Your task to perform on an android device: open app "Google Chat" (install if not already installed) Image 0: 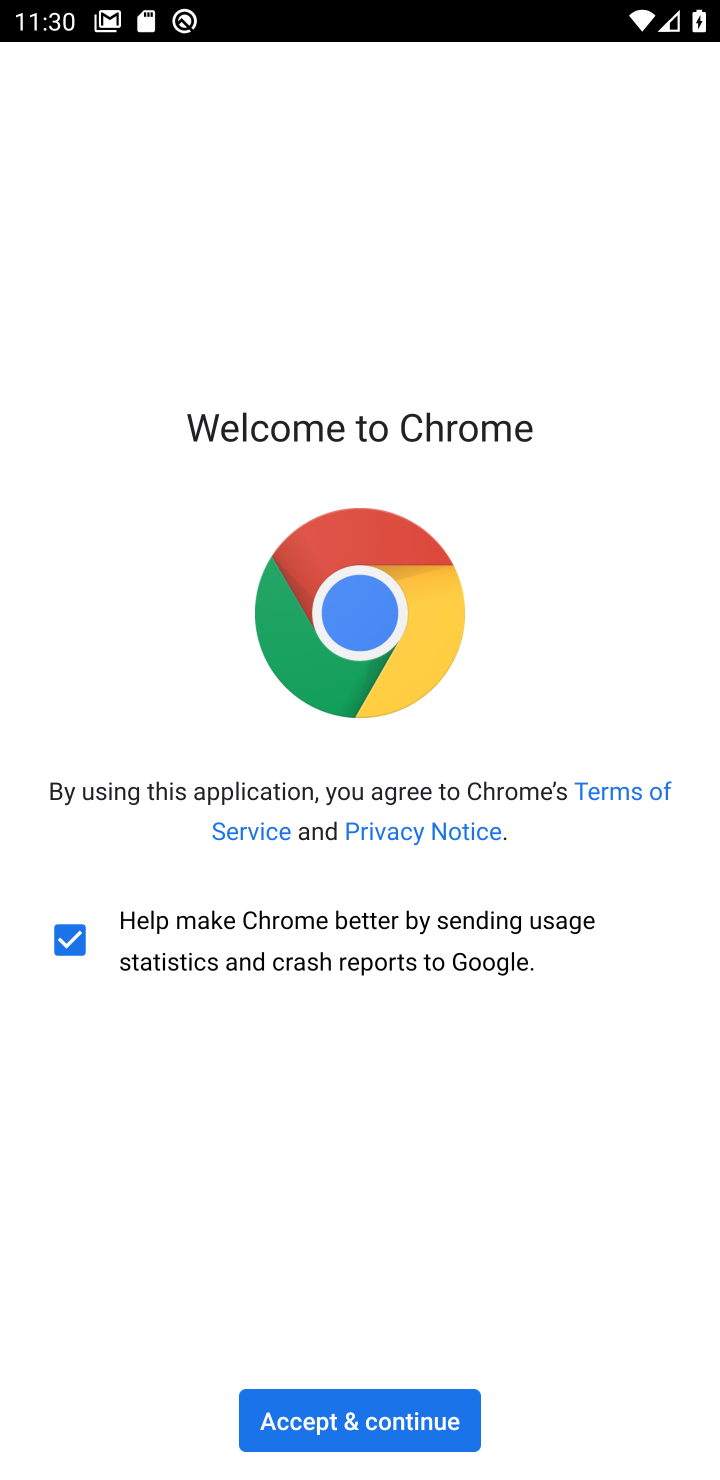
Step 0: press home button
Your task to perform on an android device: open app "Google Chat" (install if not already installed) Image 1: 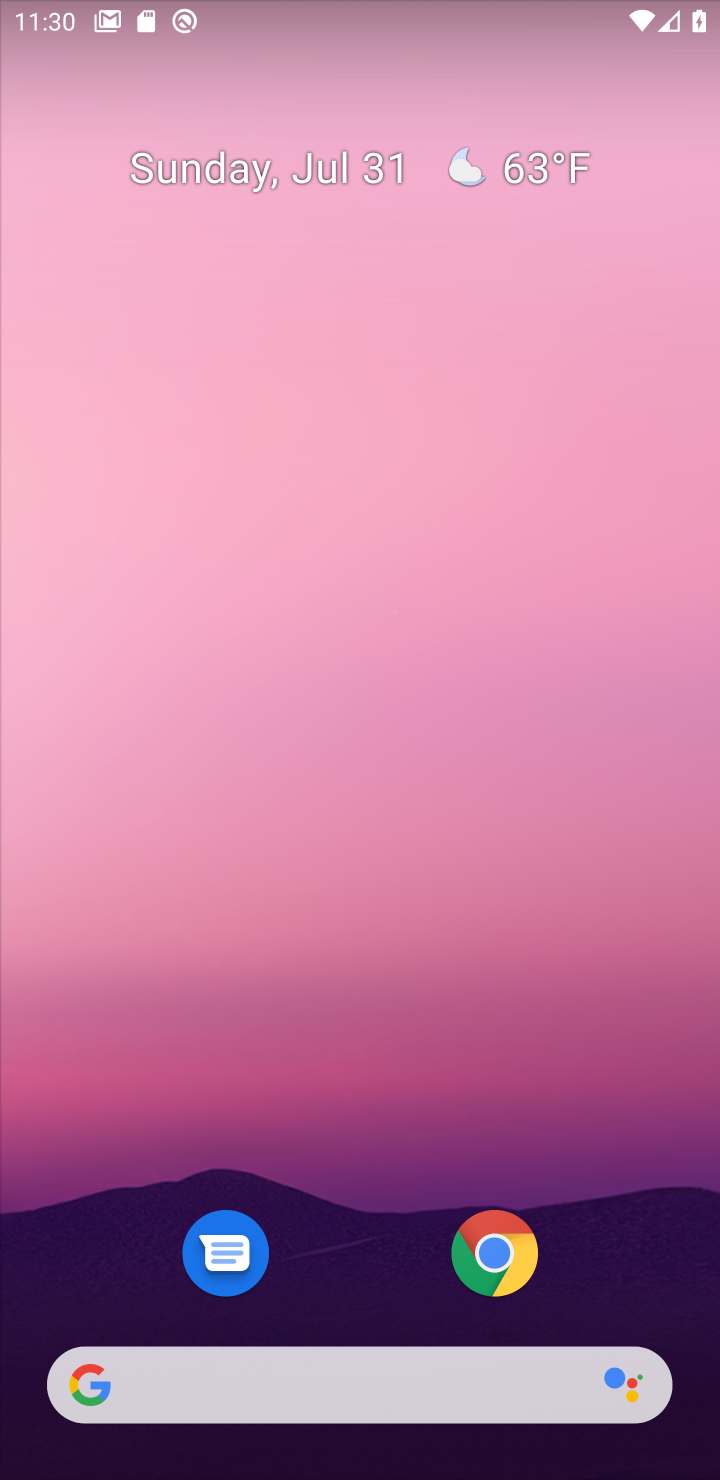
Step 1: drag from (485, 1010) to (527, 193)
Your task to perform on an android device: open app "Google Chat" (install if not already installed) Image 2: 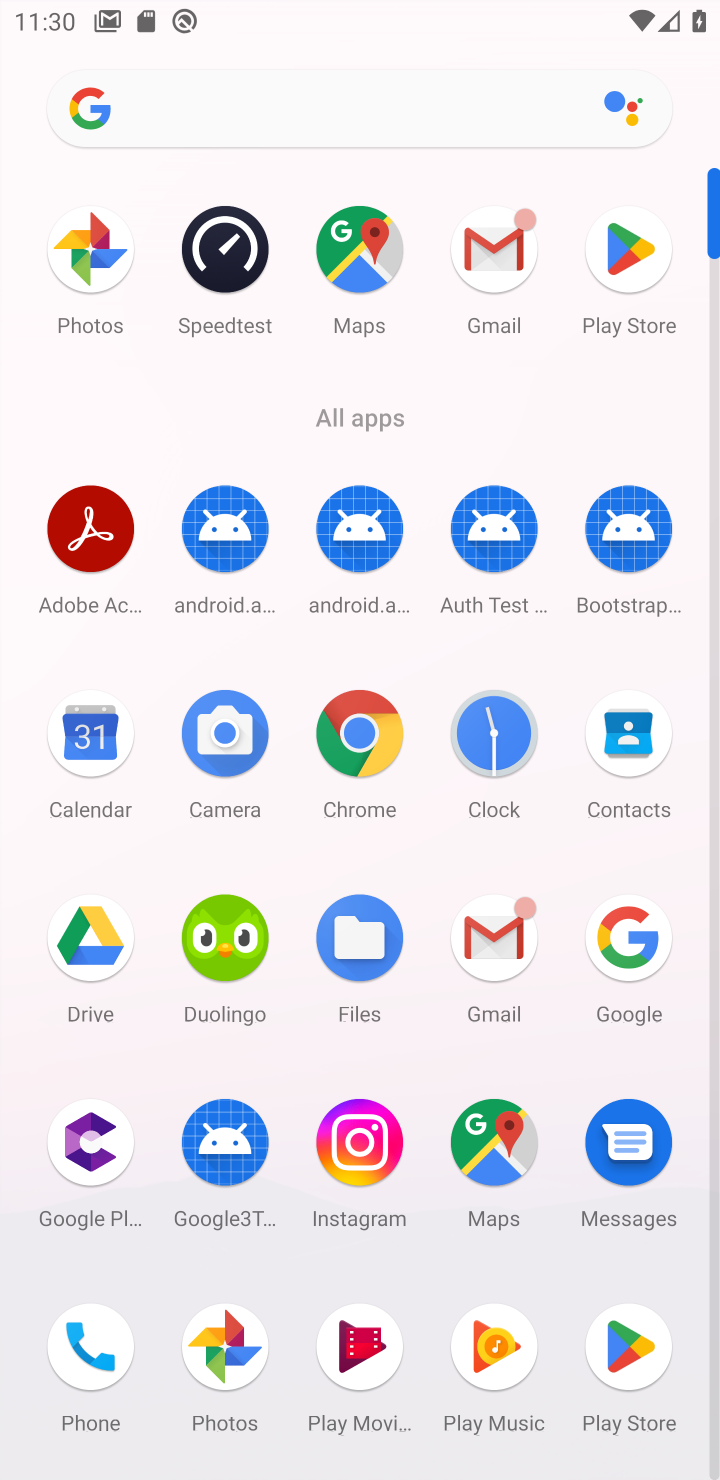
Step 2: click (632, 234)
Your task to perform on an android device: open app "Google Chat" (install if not already installed) Image 3: 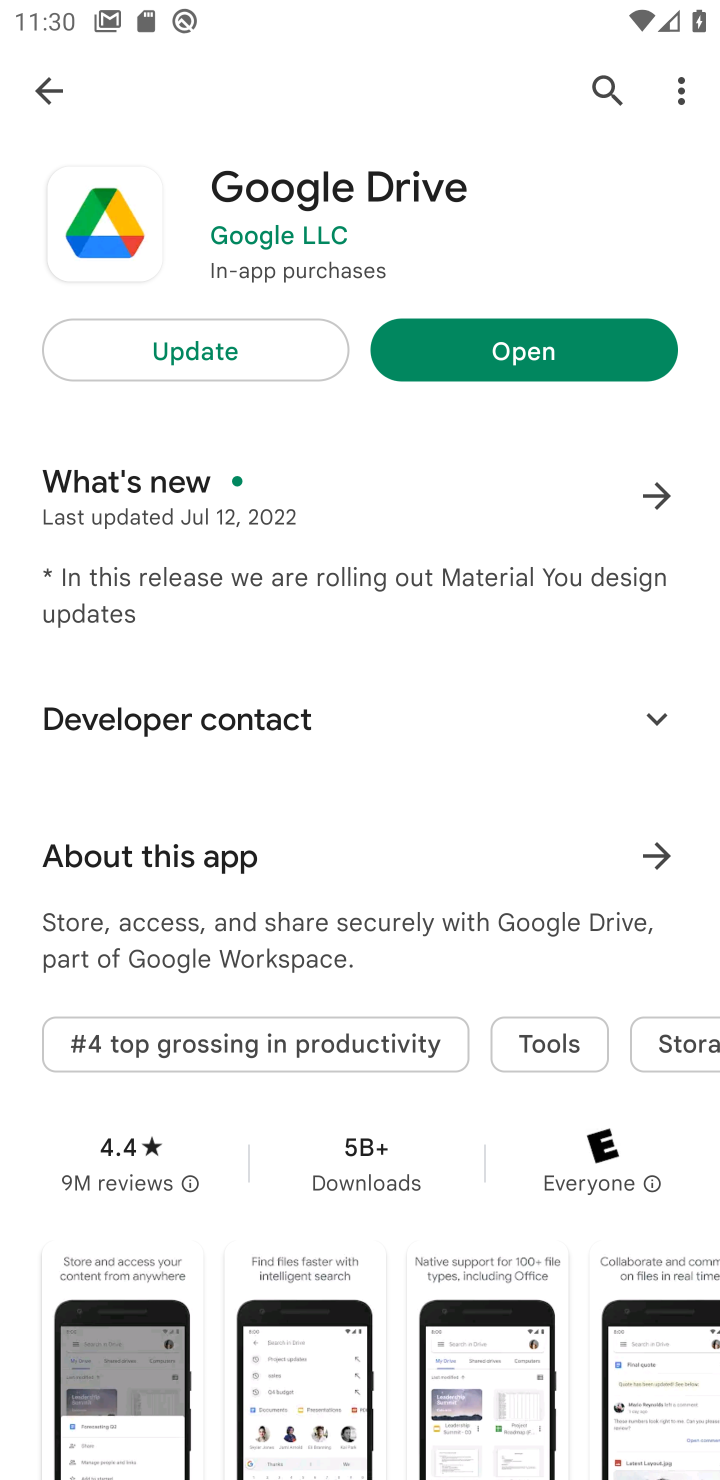
Step 3: click (609, 85)
Your task to perform on an android device: open app "Google Chat" (install if not already installed) Image 4: 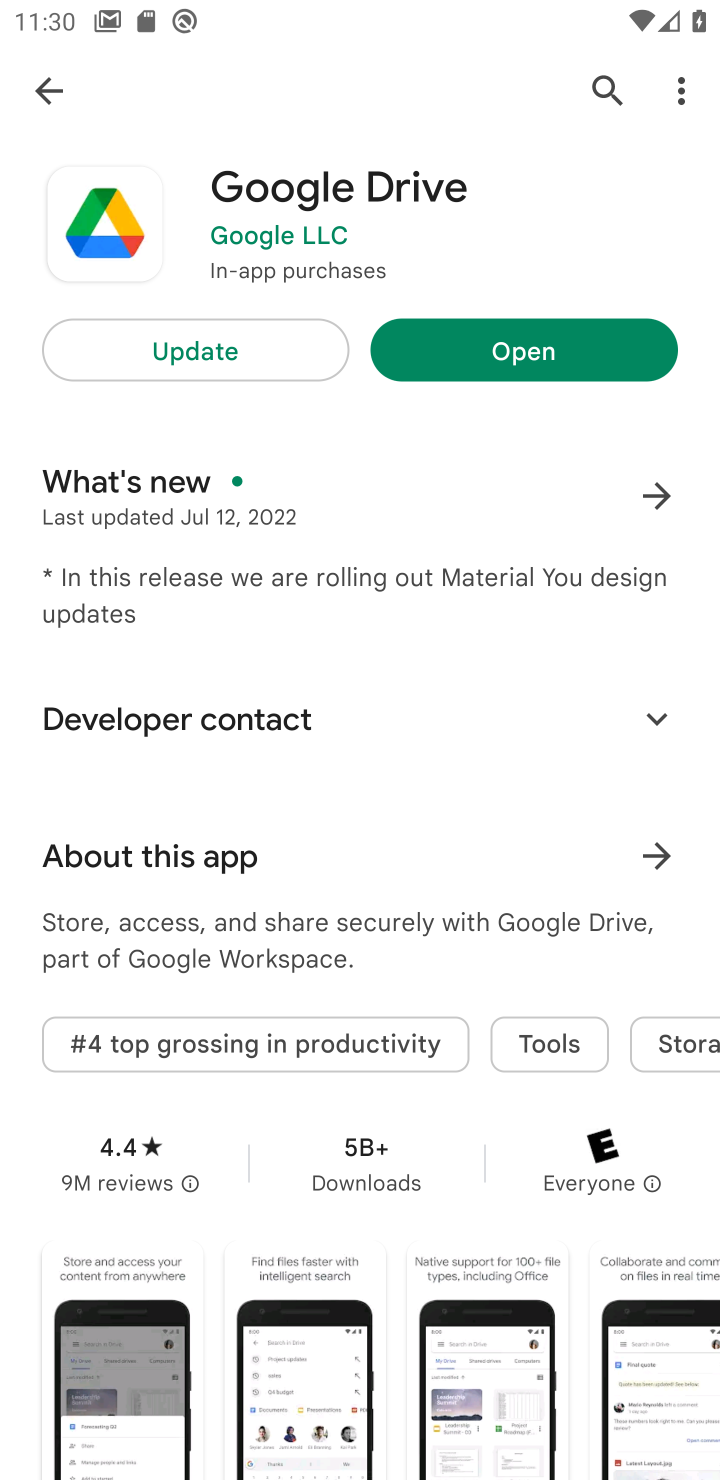
Step 4: click (587, 79)
Your task to perform on an android device: open app "Google Chat" (install if not already installed) Image 5: 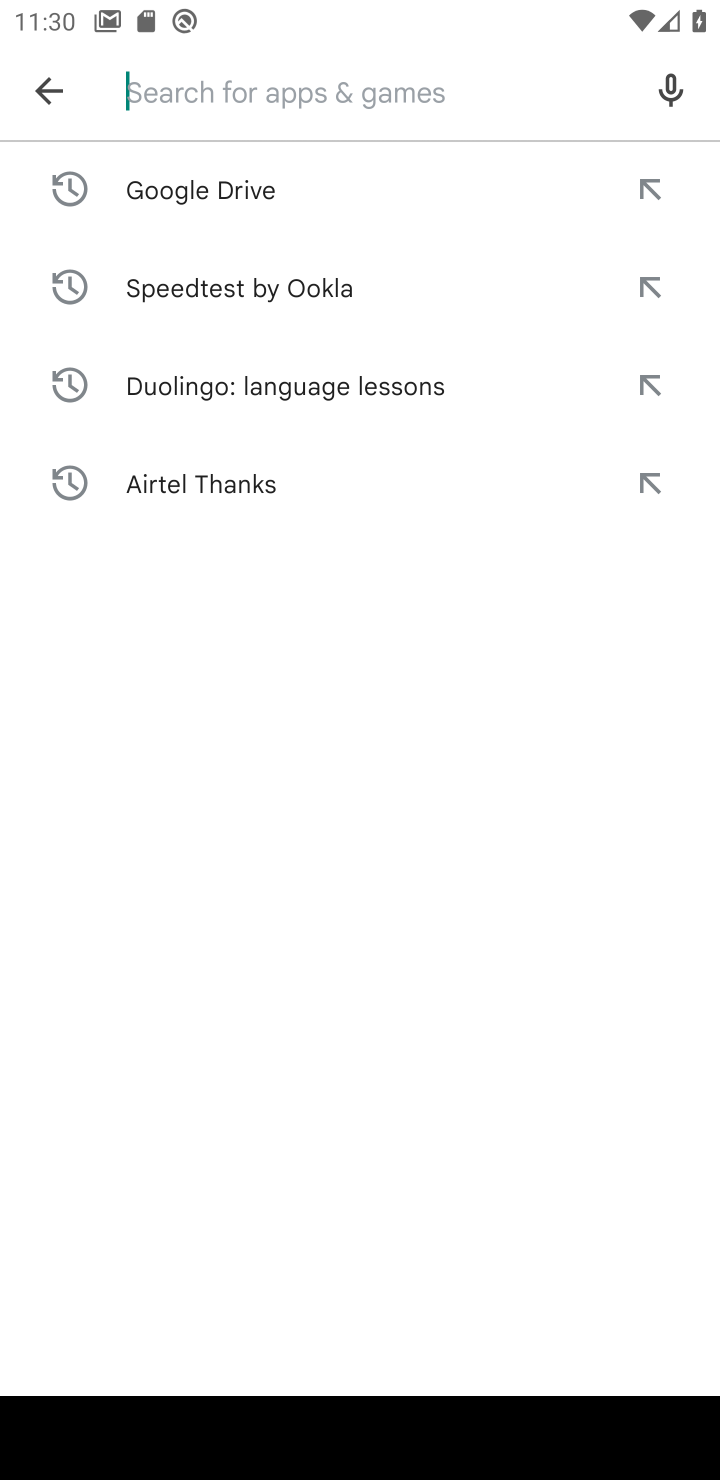
Step 5: type "Google Chat"
Your task to perform on an android device: open app "Google Chat" (install if not already installed) Image 6: 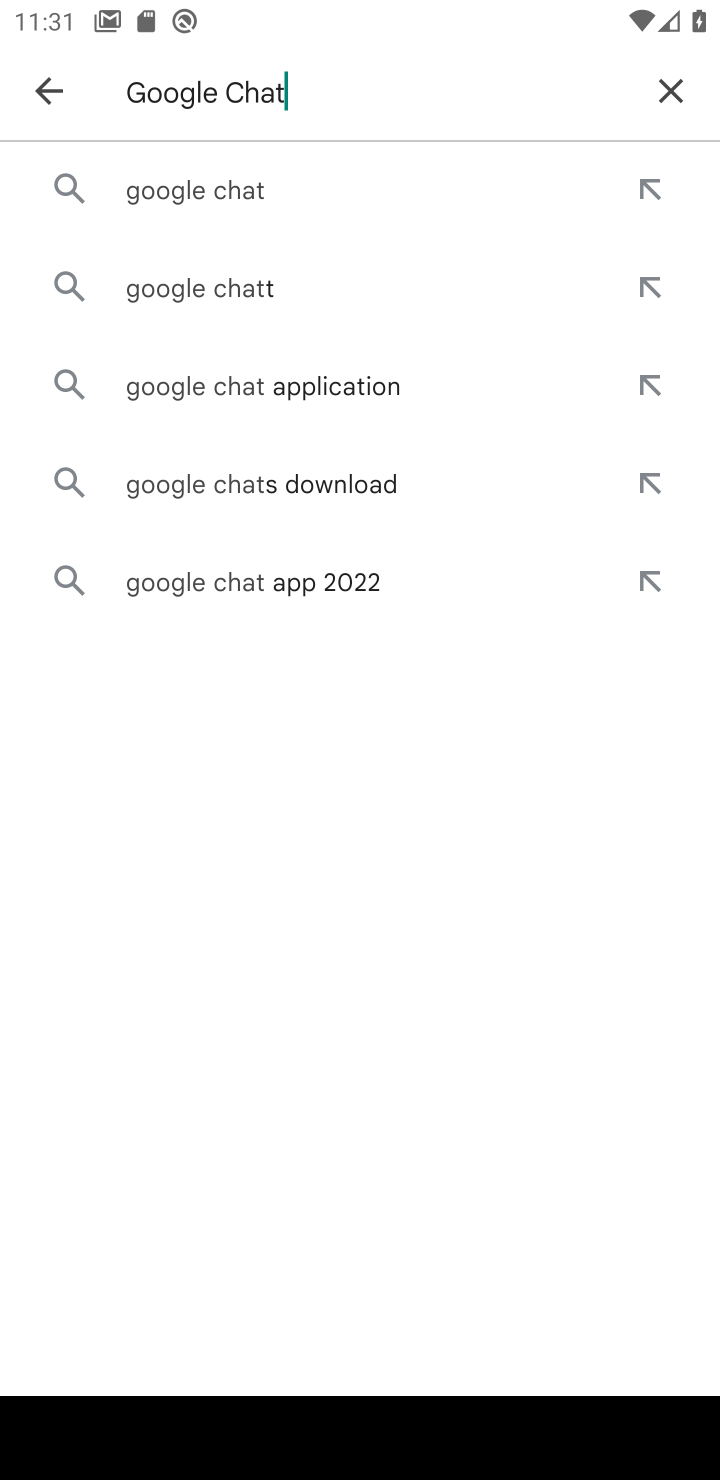
Step 6: press enter
Your task to perform on an android device: open app "Google Chat" (install if not already installed) Image 7: 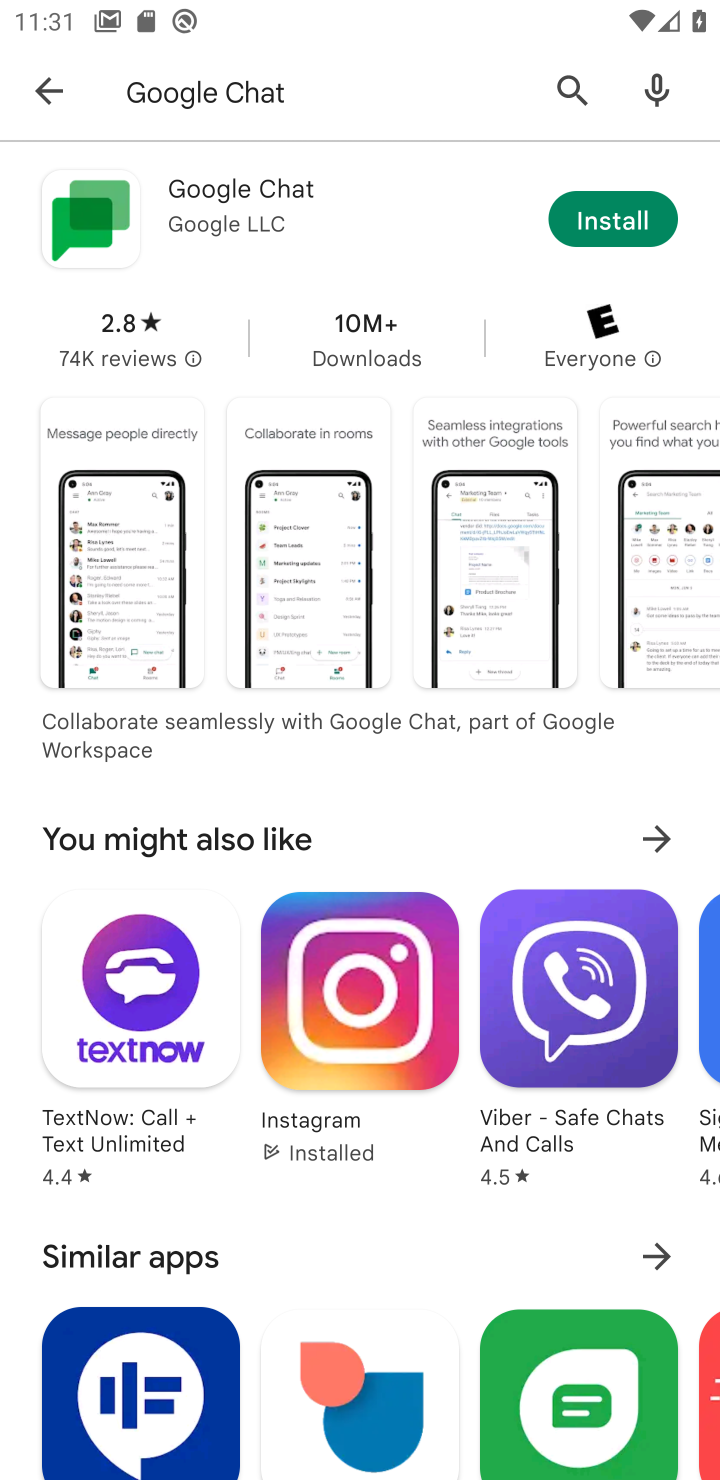
Step 7: click (617, 233)
Your task to perform on an android device: open app "Google Chat" (install if not already installed) Image 8: 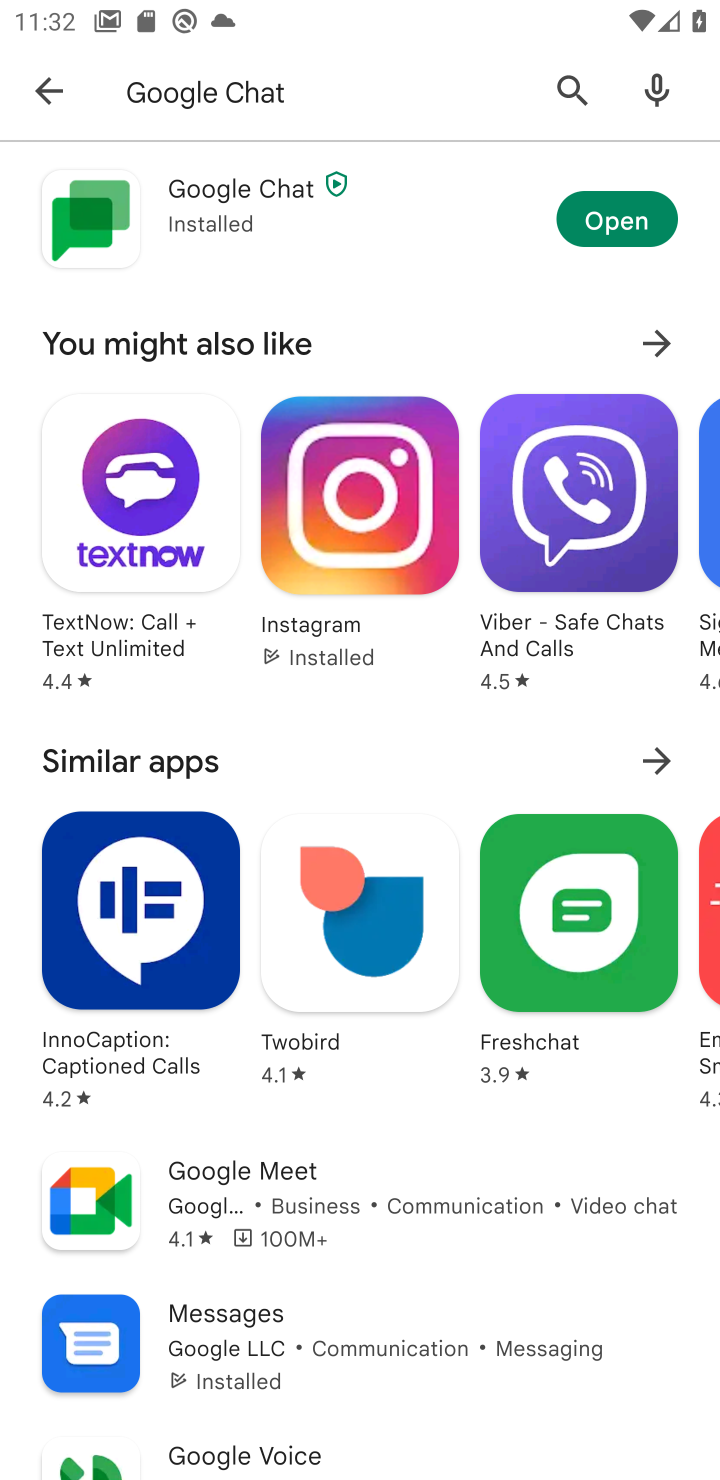
Step 8: click (618, 228)
Your task to perform on an android device: open app "Google Chat" (install if not already installed) Image 9: 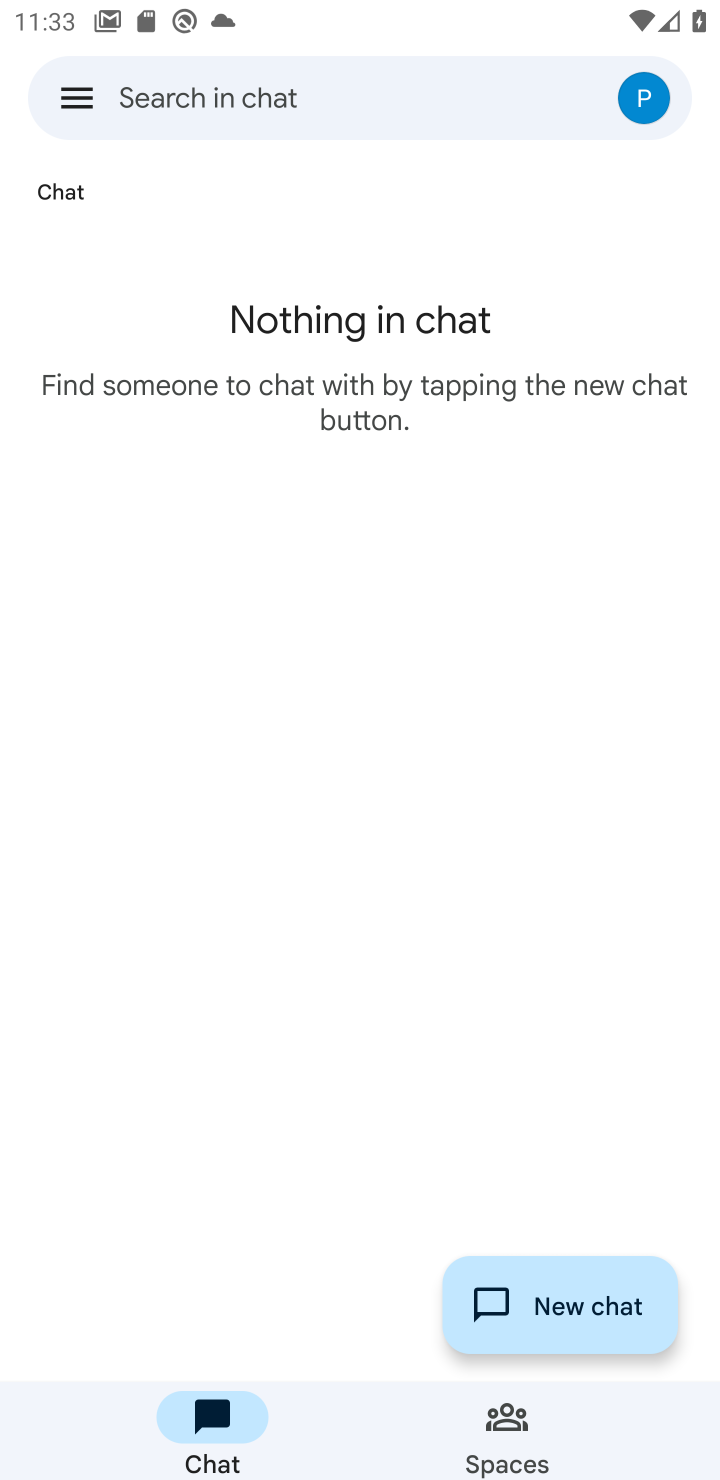
Step 9: task complete